Your task to perform on an android device: Add "amazon basics triple a" to the cart on walmart Image 0: 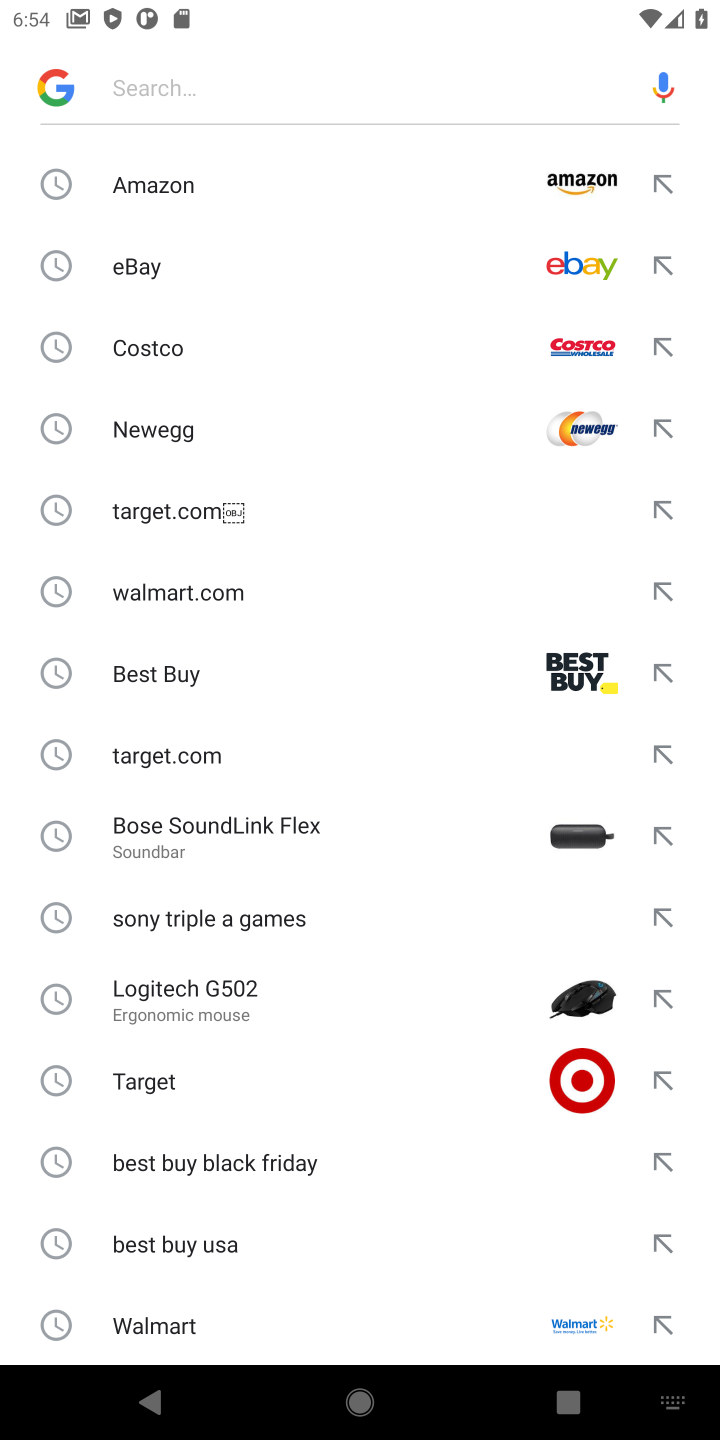
Step 0: click (255, 579)
Your task to perform on an android device: Add "amazon basics triple a" to the cart on walmart Image 1: 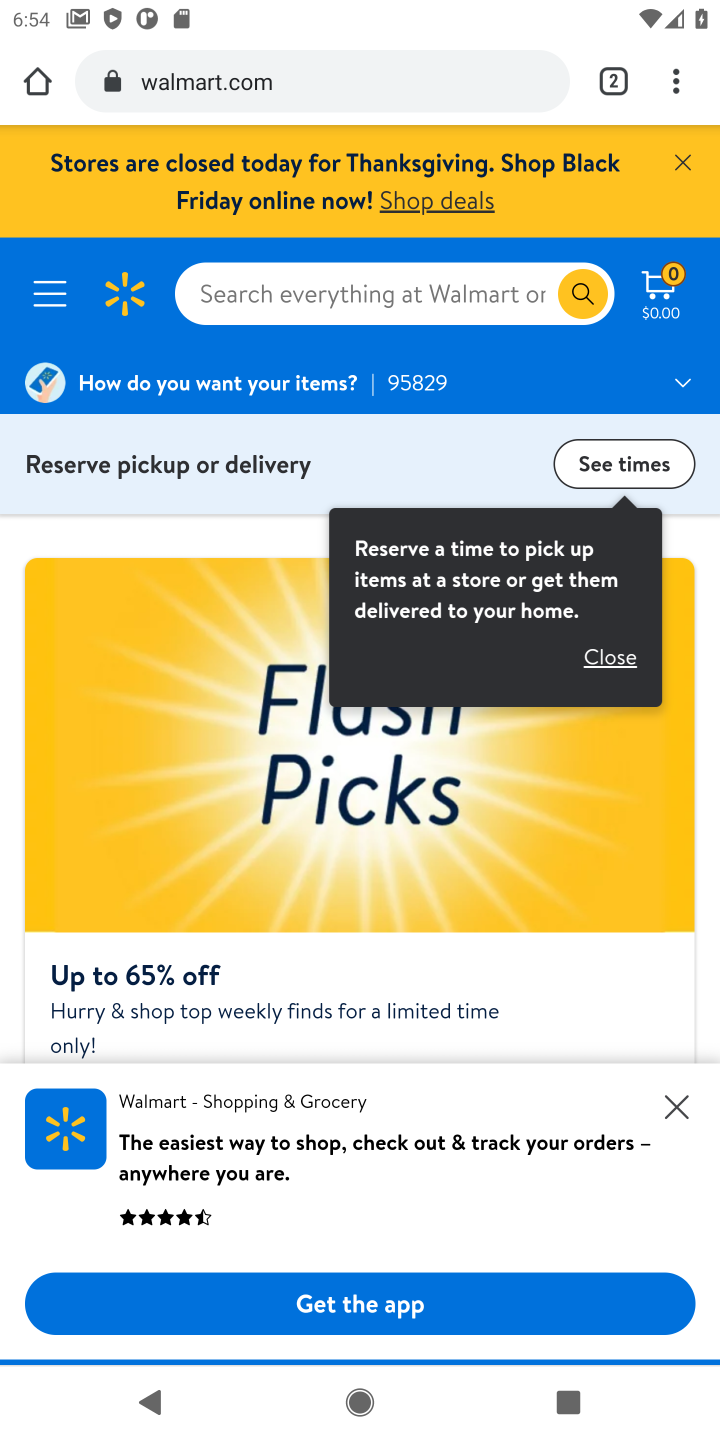
Step 1: click (254, 283)
Your task to perform on an android device: Add "amazon basics triple a" to the cart on walmart Image 2: 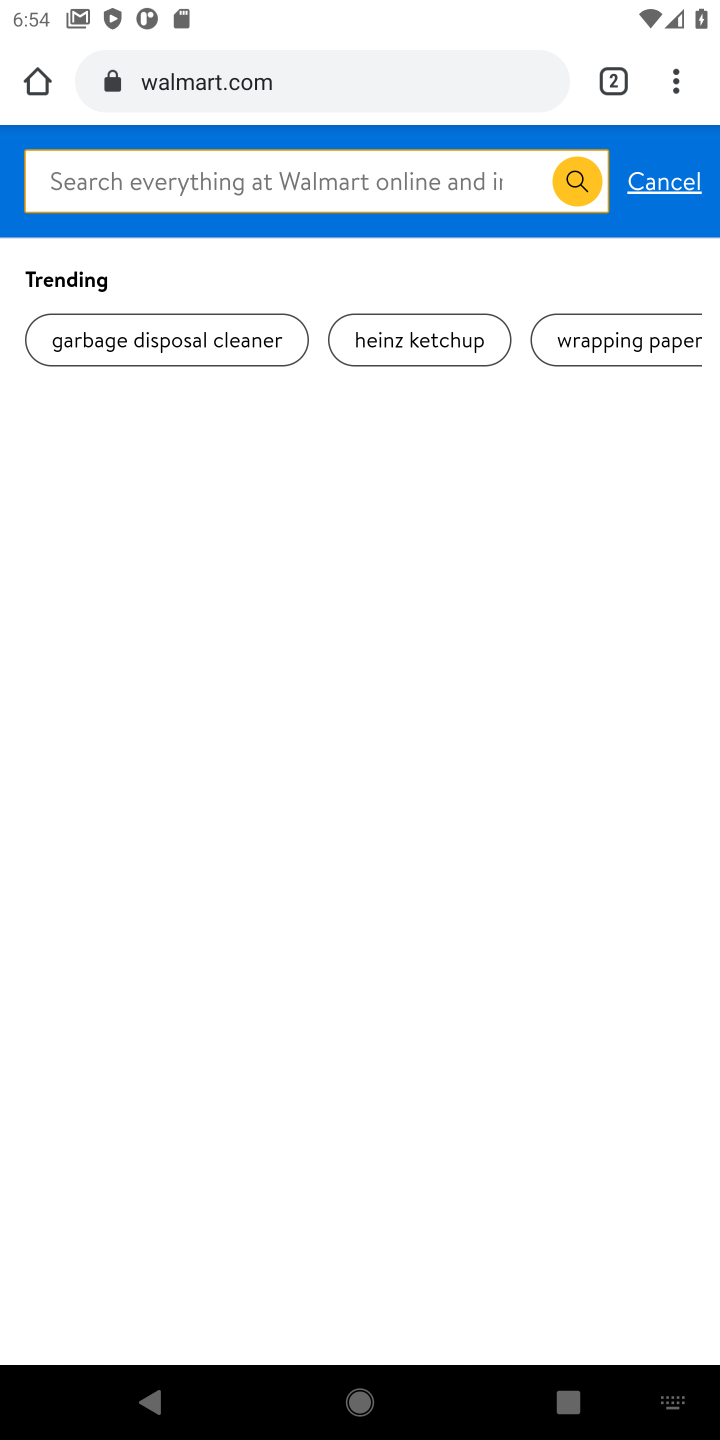
Step 2: type "amazon basics triple a"
Your task to perform on an android device: Add "amazon basics triple a" to the cart on walmart Image 3: 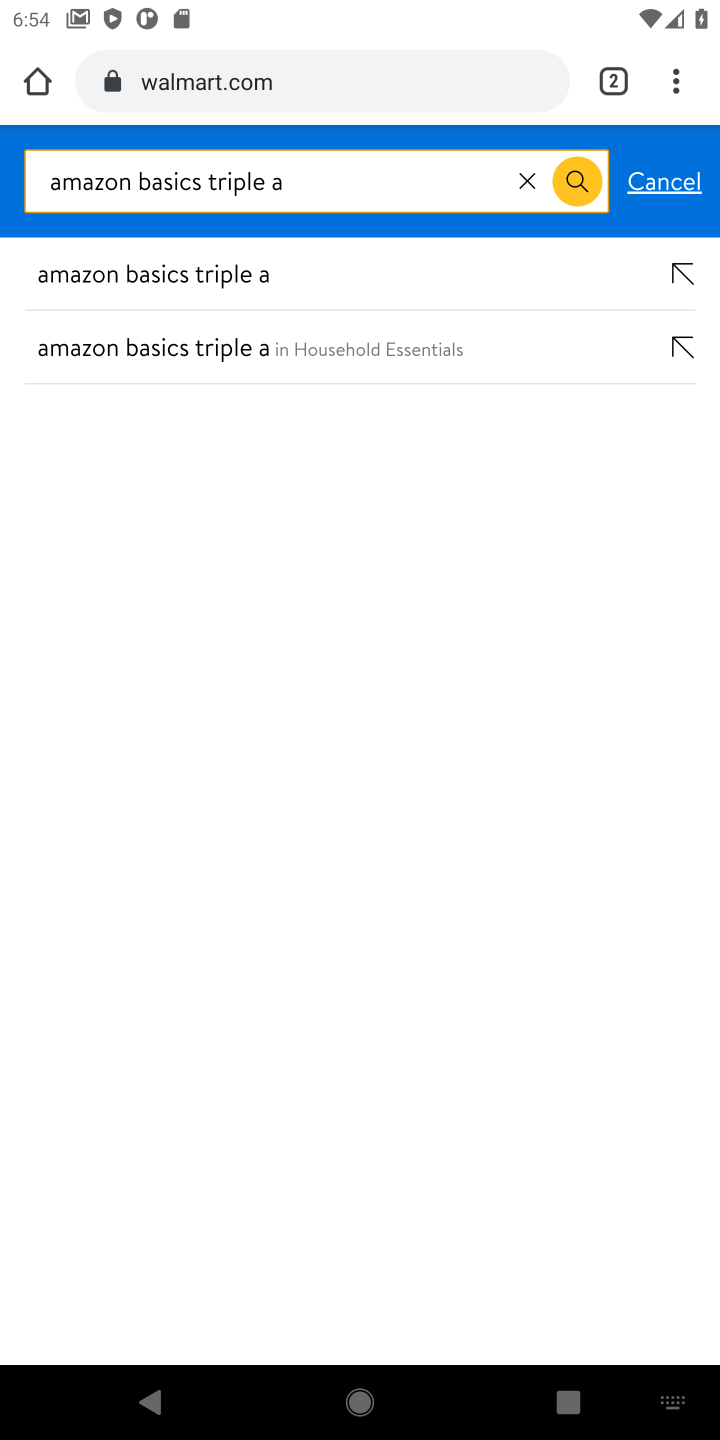
Step 3: click (207, 275)
Your task to perform on an android device: Add "amazon basics triple a" to the cart on walmart Image 4: 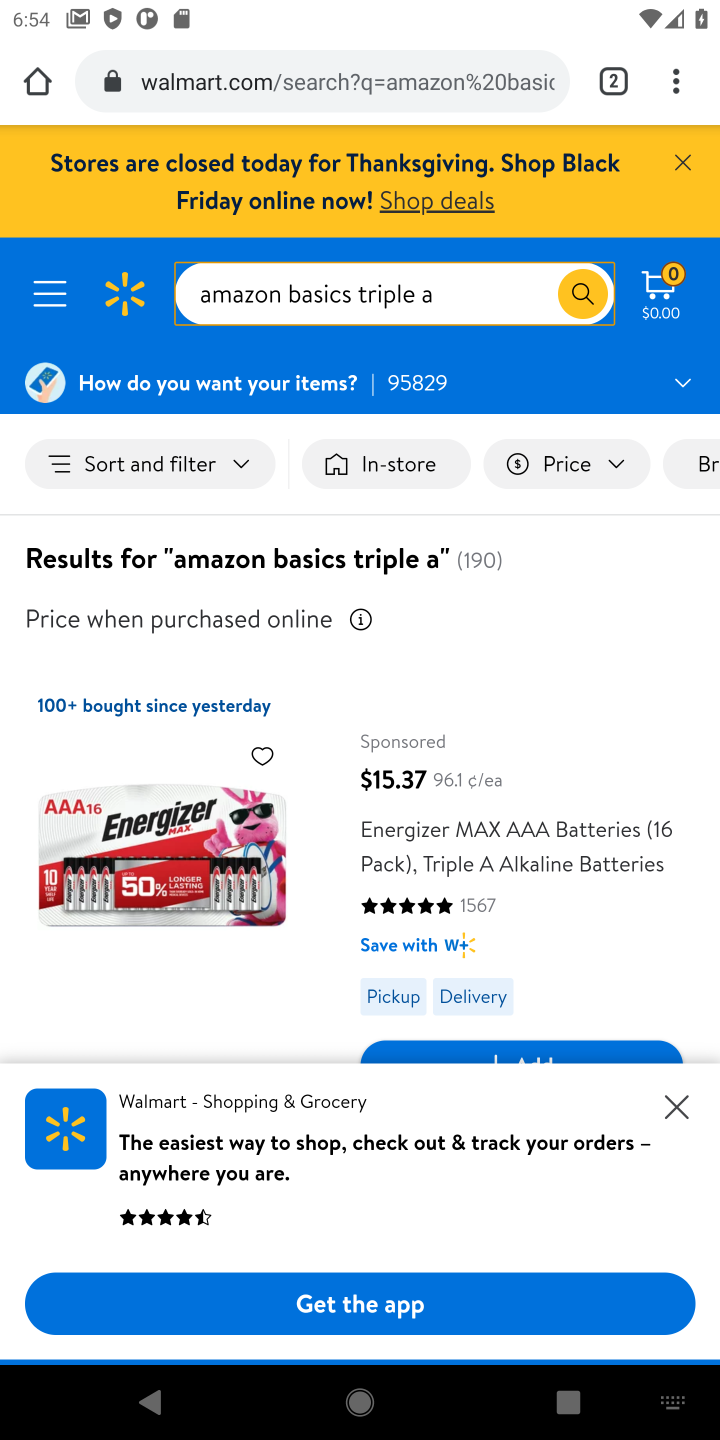
Step 4: drag from (352, 689) to (381, 456)
Your task to perform on an android device: Add "amazon basics triple a" to the cart on walmart Image 5: 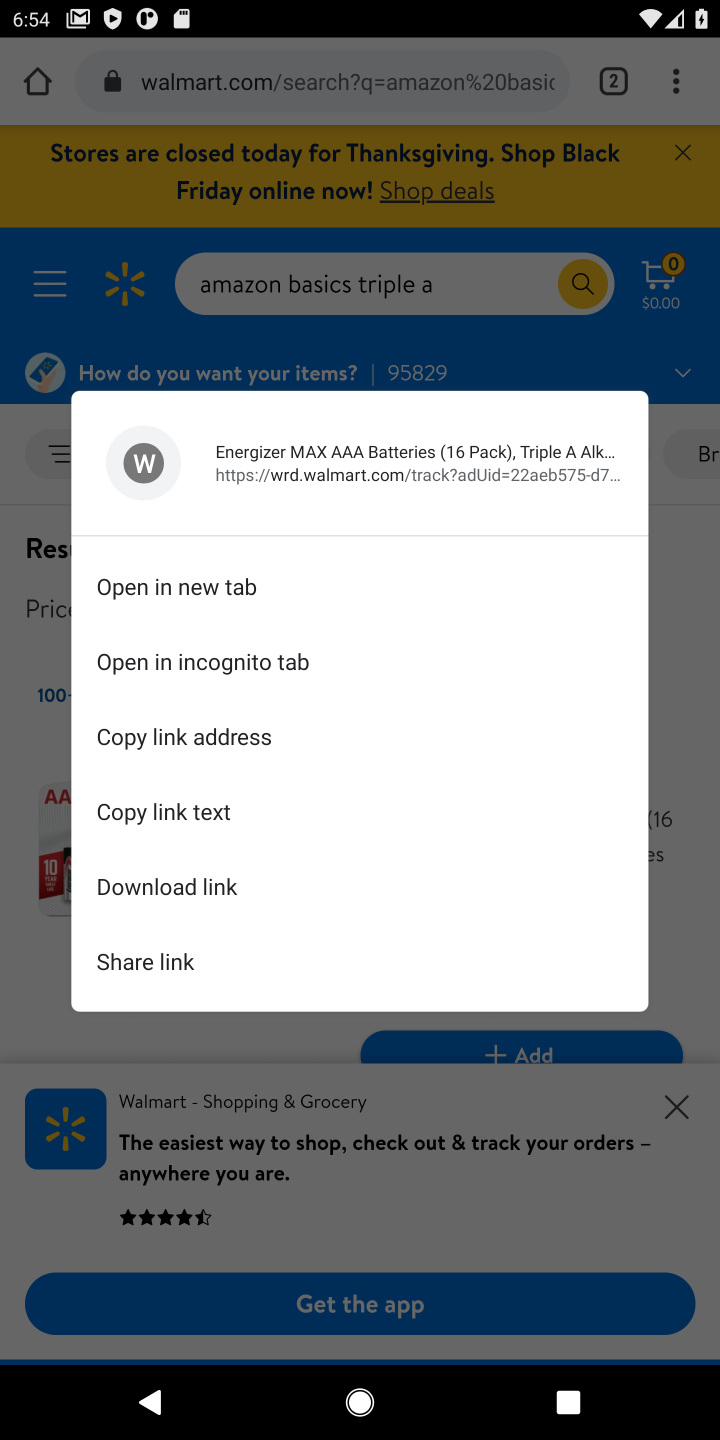
Step 5: click (358, 345)
Your task to perform on an android device: Add "amazon basics triple a" to the cart on walmart Image 6: 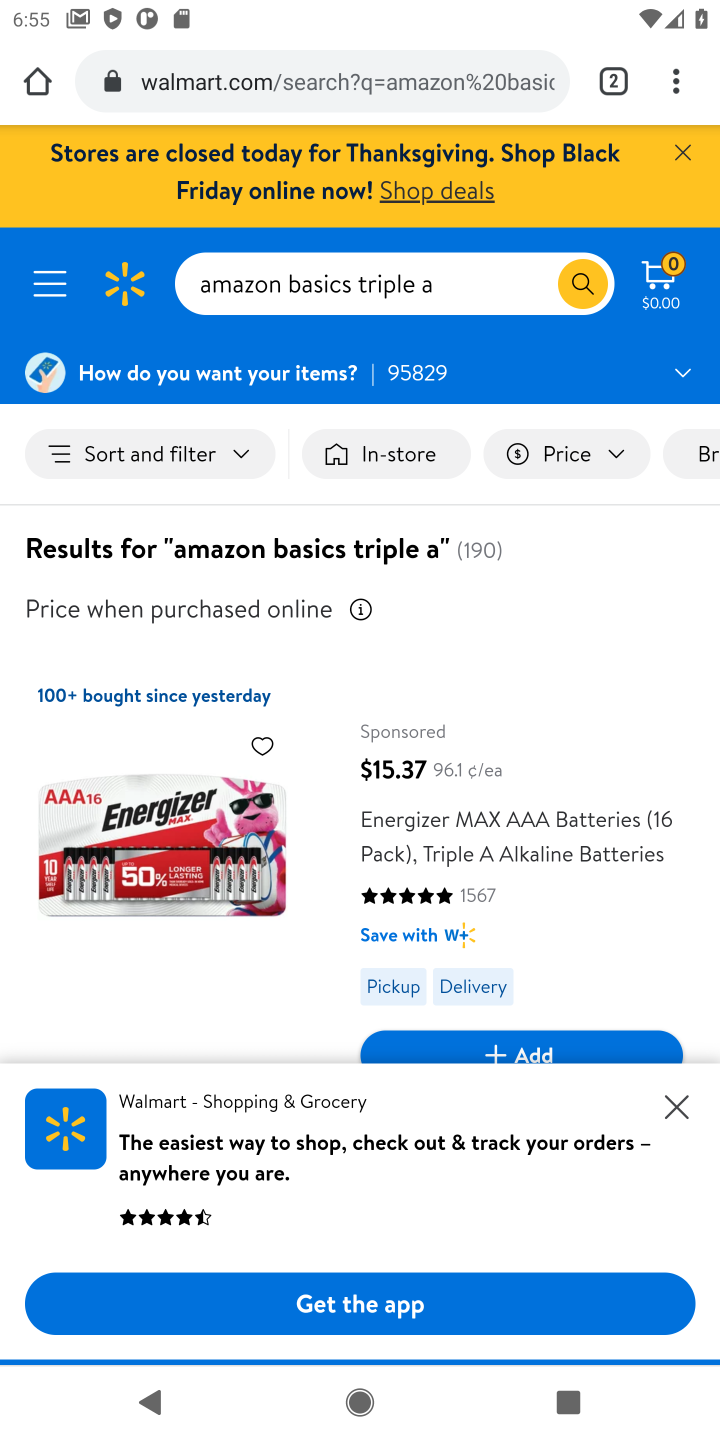
Step 6: task complete